Your task to perform on an android device: move a message to another label in the gmail app Image 0: 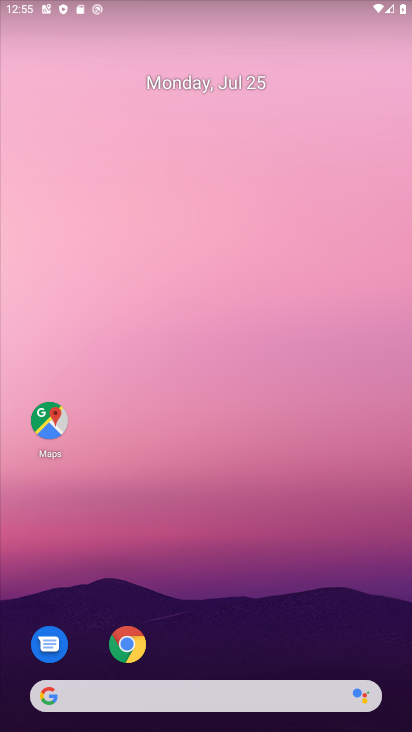
Step 0: press home button
Your task to perform on an android device: move a message to another label in the gmail app Image 1: 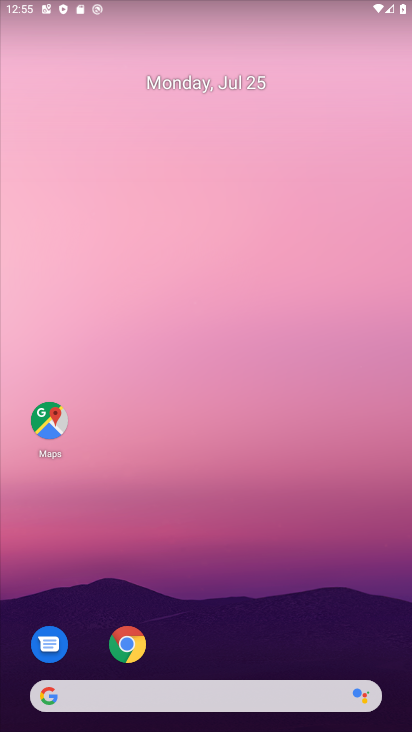
Step 1: drag from (317, 580) to (299, 79)
Your task to perform on an android device: move a message to another label in the gmail app Image 2: 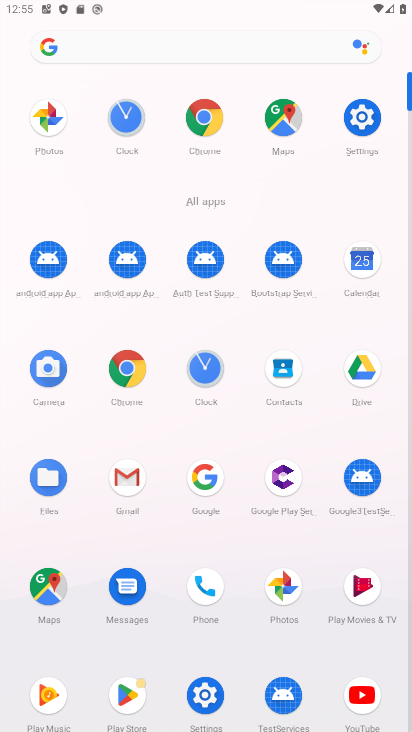
Step 2: click (130, 468)
Your task to perform on an android device: move a message to another label in the gmail app Image 3: 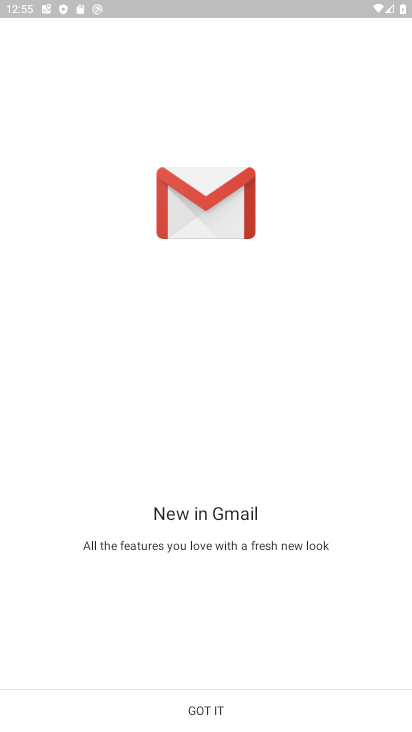
Step 3: click (268, 711)
Your task to perform on an android device: move a message to another label in the gmail app Image 4: 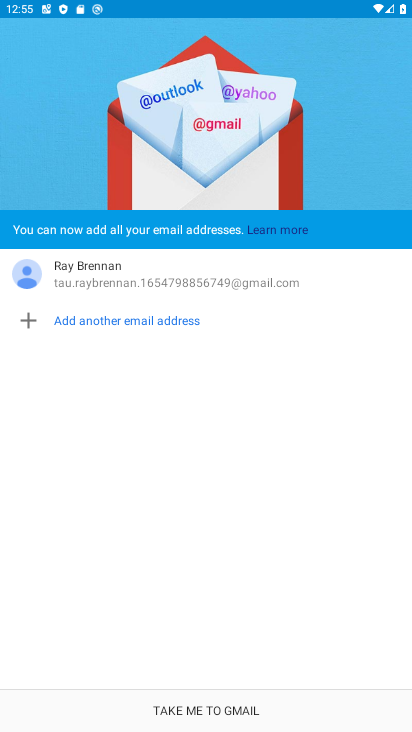
Step 4: click (260, 720)
Your task to perform on an android device: move a message to another label in the gmail app Image 5: 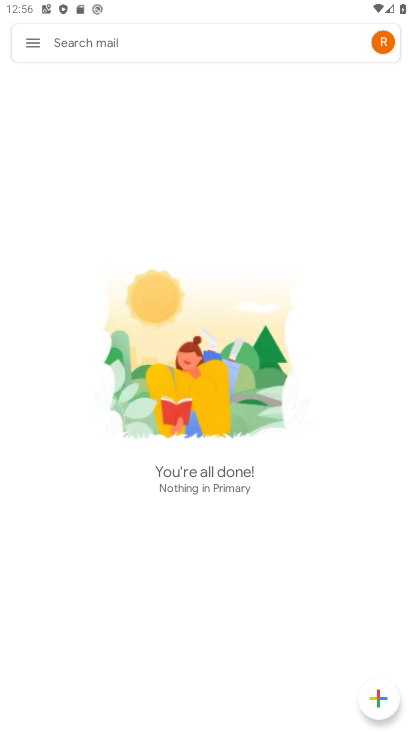
Step 5: click (36, 42)
Your task to perform on an android device: move a message to another label in the gmail app Image 6: 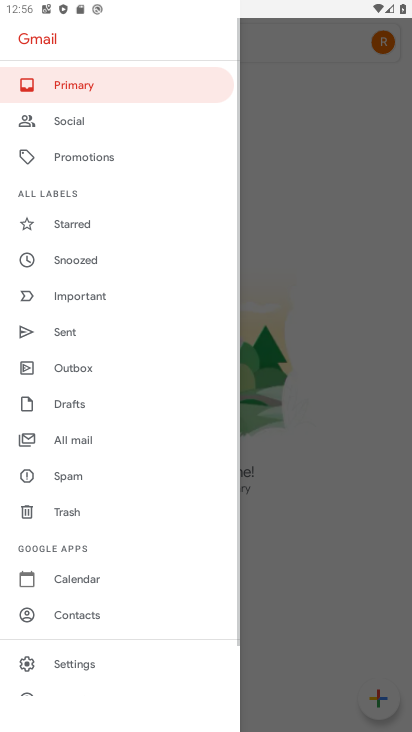
Step 6: click (83, 439)
Your task to perform on an android device: move a message to another label in the gmail app Image 7: 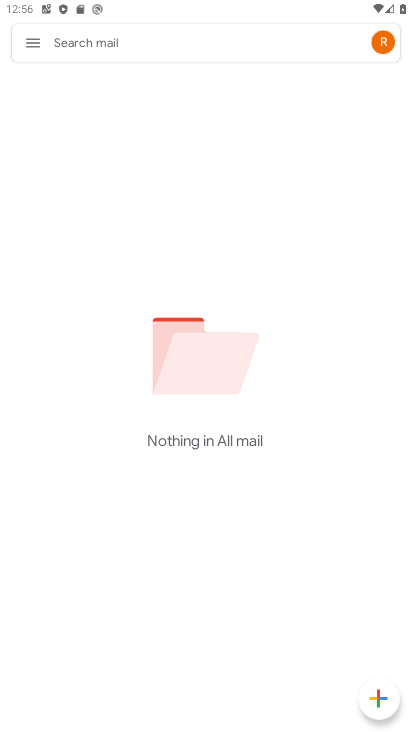
Step 7: task complete